Your task to perform on an android device: Open Maps and search for coffee Image 0: 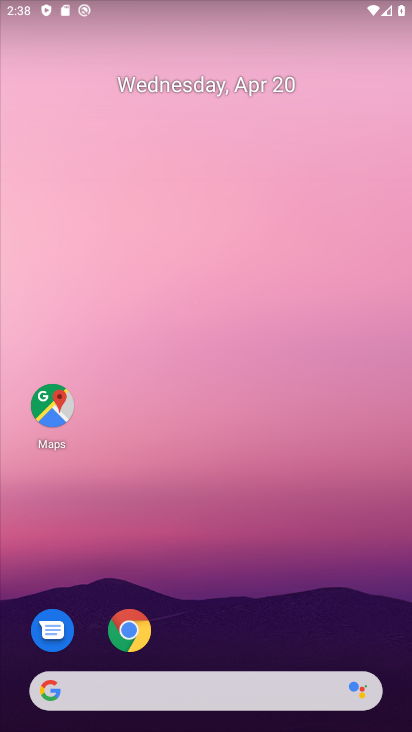
Step 0: click (62, 402)
Your task to perform on an android device: Open Maps and search for coffee Image 1: 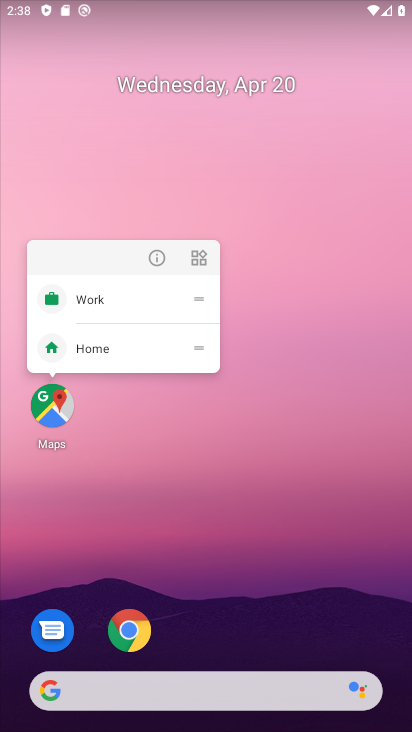
Step 1: click (67, 407)
Your task to perform on an android device: Open Maps and search for coffee Image 2: 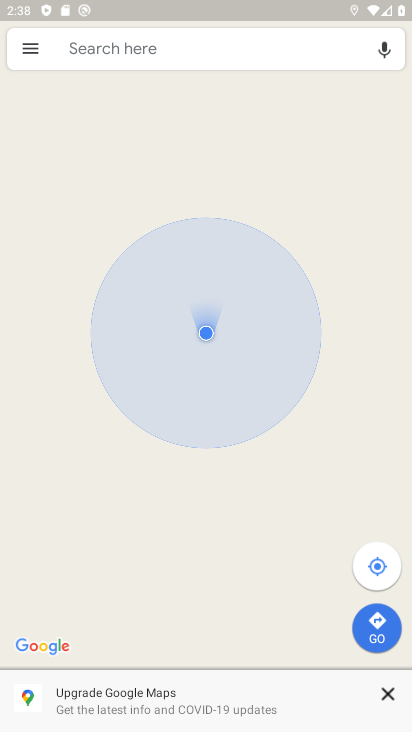
Step 2: click (225, 55)
Your task to perform on an android device: Open Maps and search for coffee Image 3: 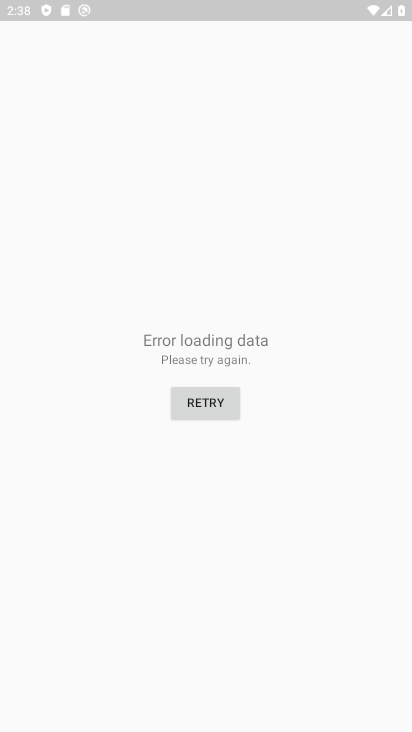
Step 3: click (201, 403)
Your task to perform on an android device: Open Maps and search for coffee Image 4: 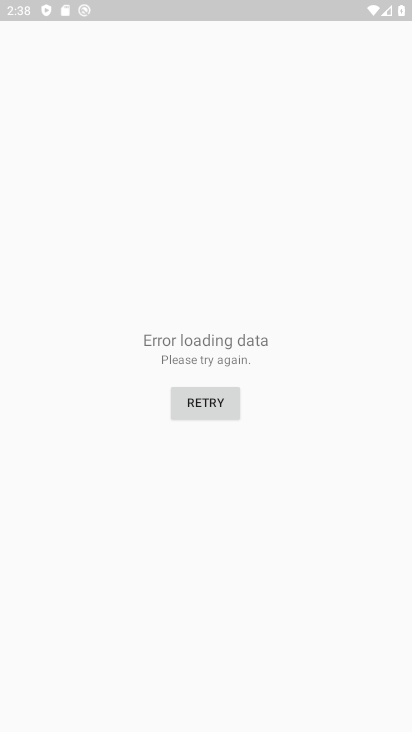
Step 4: click (201, 403)
Your task to perform on an android device: Open Maps and search for coffee Image 5: 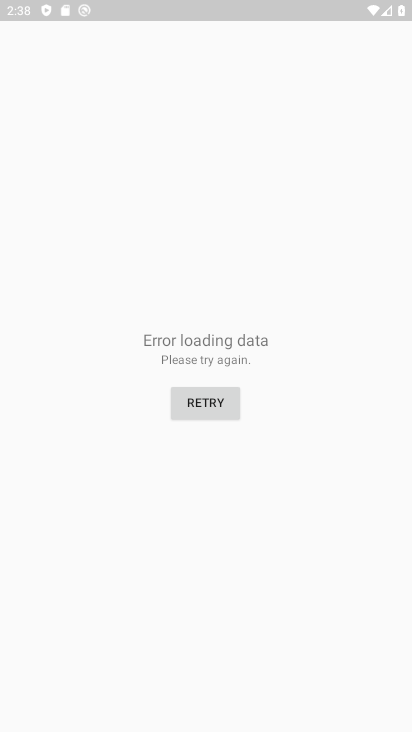
Step 5: click (201, 403)
Your task to perform on an android device: Open Maps and search for coffee Image 6: 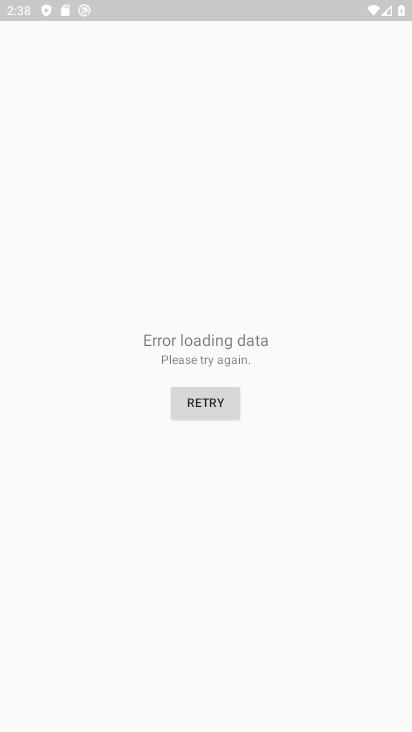
Step 6: task complete